Your task to perform on an android device: Go to Yahoo.com Image 0: 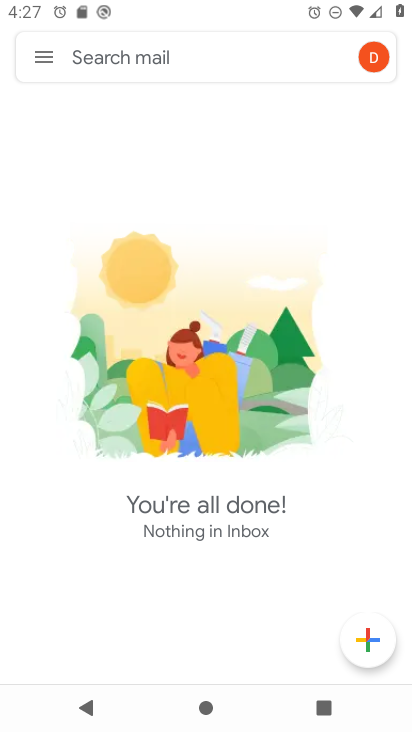
Step 0: press home button
Your task to perform on an android device: Go to Yahoo.com Image 1: 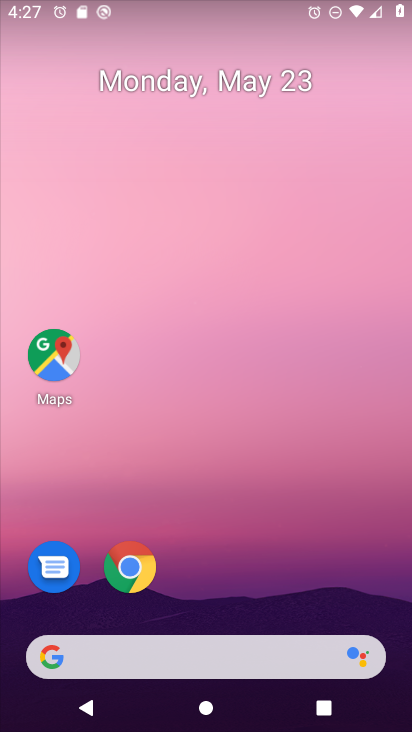
Step 1: click (126, 567)
Your task to perform on an android device: Go to Yahoo.com Image 2: 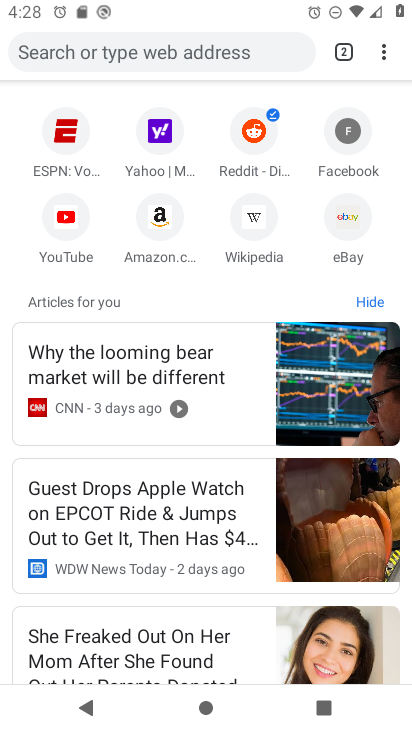
Step 2: click (151, 133)
Your task to perform on an android device: Go to Yahoo.com Image 3: 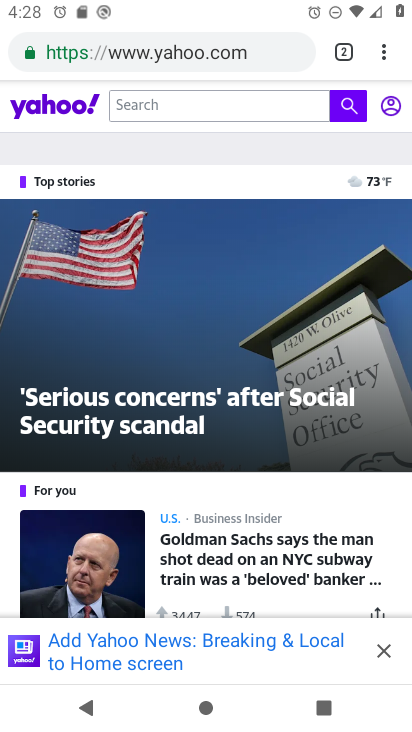
Step 3: task complete